Your task to perform on an android device: turn on showing notifications on the lock screen Image 0: 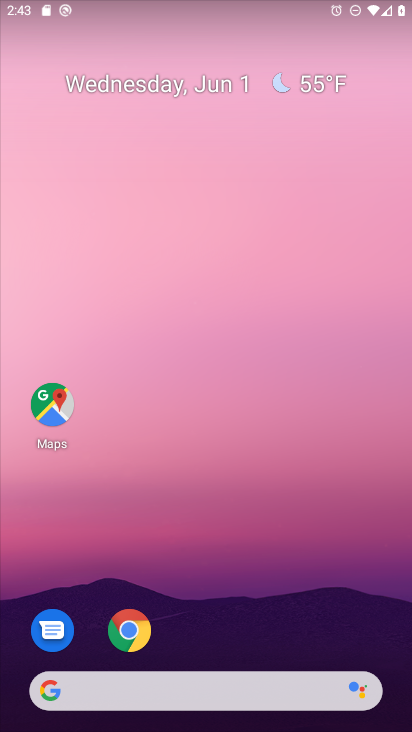
Step 0: drag from (320, 671) to (342, 49)
Your task to perform on an android device: turn on showing notifications on the lock screen Image 1: 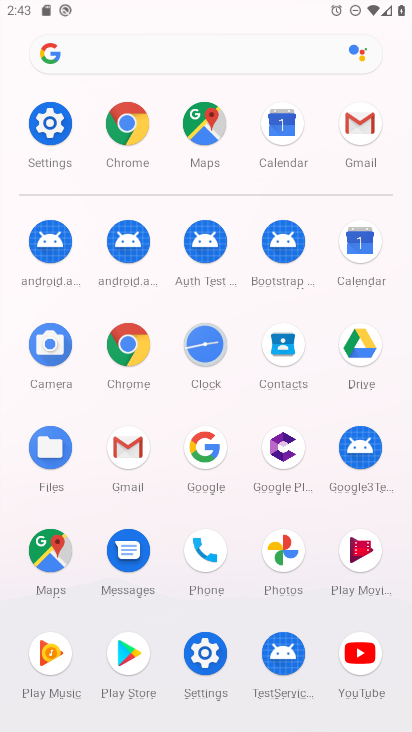
Step 1: click (47, 117)
Your task to perform on an android device: turn on showing notifications on the lock screen Image 2: 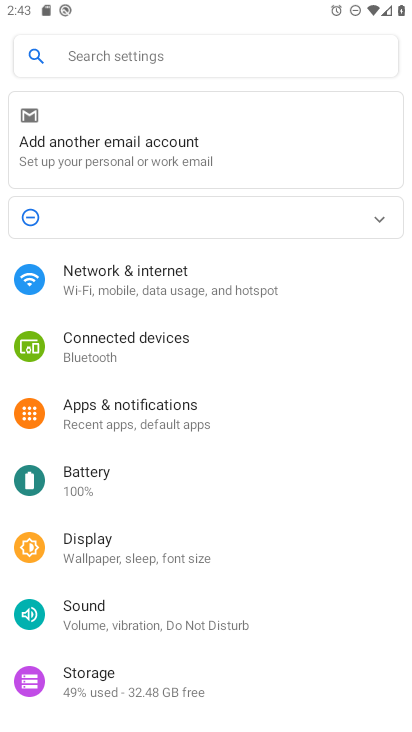
Step 2: click (103, 400)
Your task to perform on an android device: turn on showing notifications on the lock screen Image 3: 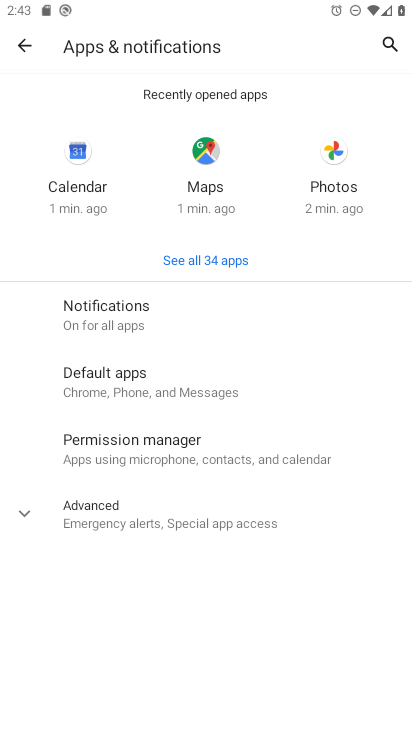
Step 3: click (119, 323)
Your task to perform on an android device: turn on showing notifications on the lock screen Image 4: 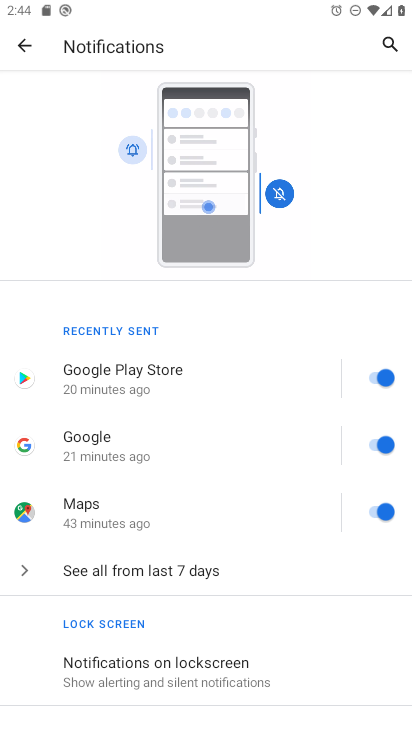
Step 4: drag from (161, 622) to (132, 298)
Your task to perform on an android device: turn on showing notifications on the lock screen Image 5: 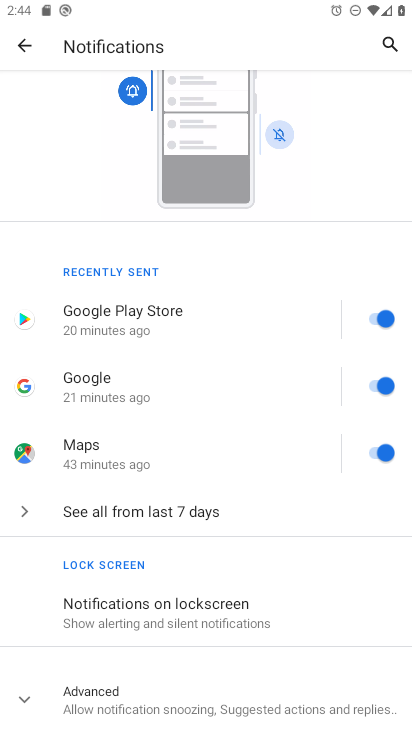
Step 5: click (169, 600)
Your task to perform on an android device: turn on showing notifications on the lock screen Image 6: 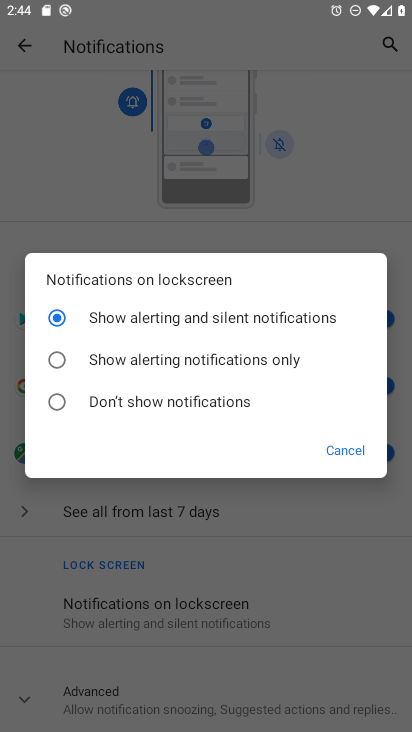
Step 6: task complete